Your task to perform on an android device: turn off location history Image 0: 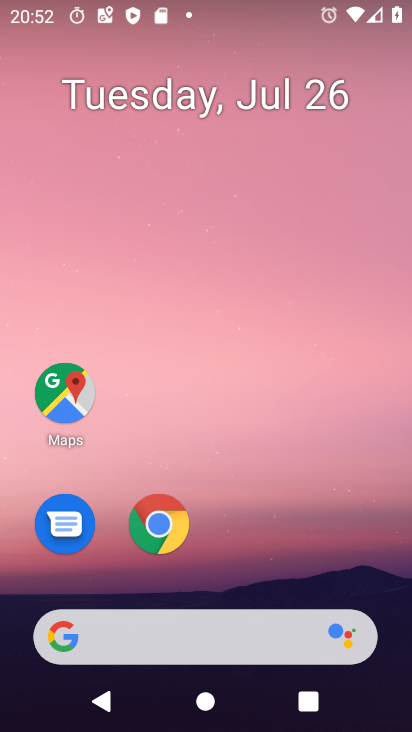
Step 0: drag from (291, 566) to (325, 66)
Your task to perform on an android device: turn off location history Image 1: 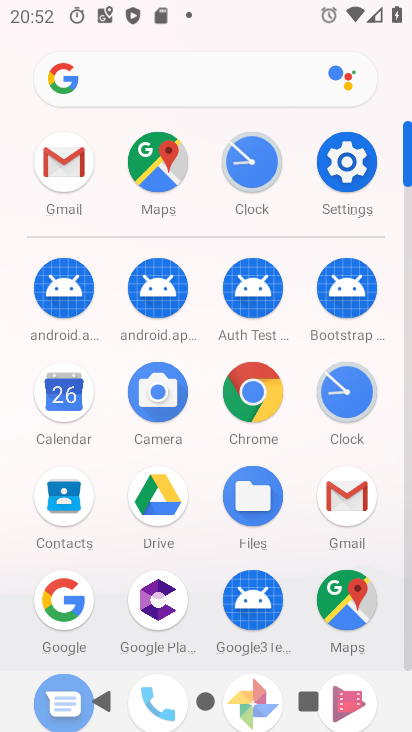
Step 1: click (350, 155)
Your task to perform on an android device: turn off location history Image 2: 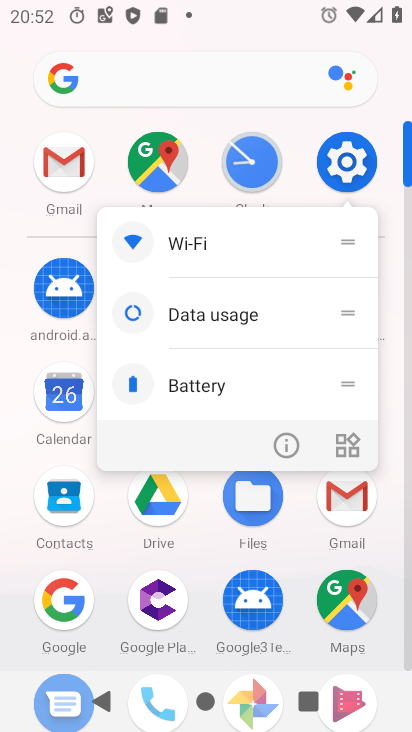
Step 2: click (350, 153)
Your task to perform on an android device: turn off location history Image 3: 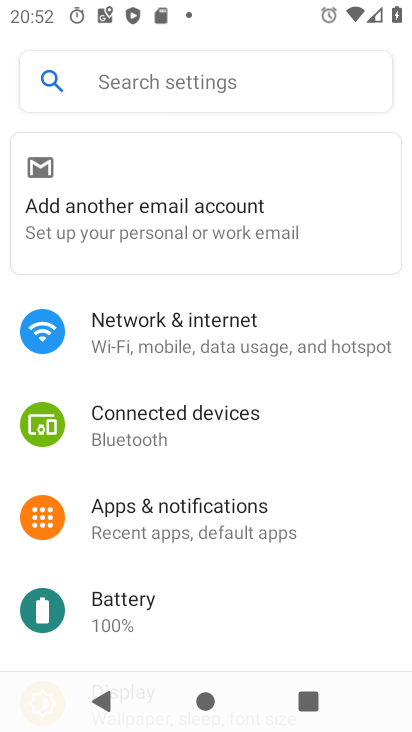
Step 3: drag from (214, 572) to (252, 31)
Your task to perform on an android device: turn off location history Image 4: 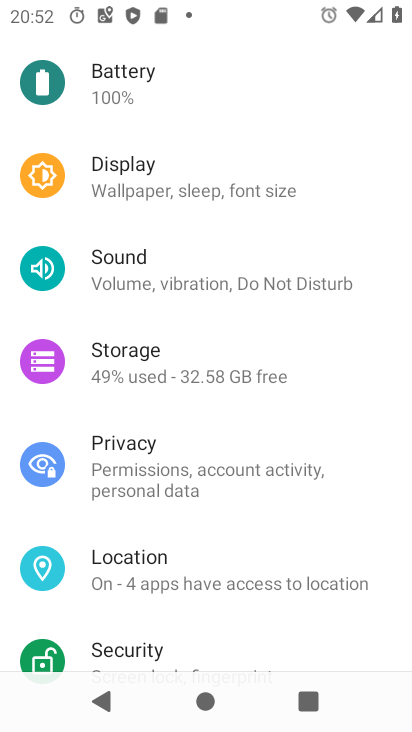
Step 4: click (218, 571)
Your task to perform on an android device: turn off location history Image 5: 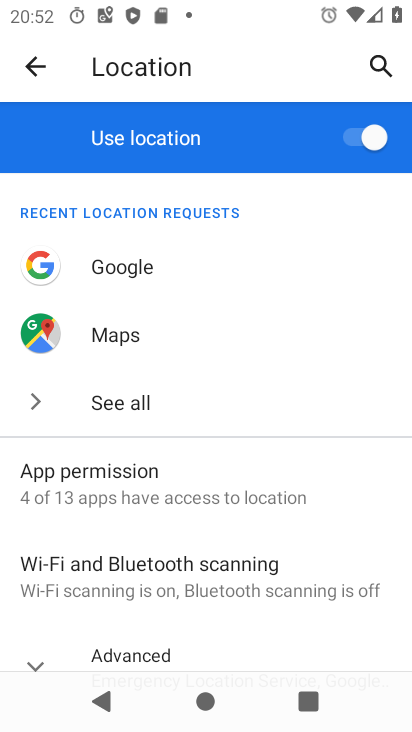
Step 5: task complete